Your task to perform on an android device: turn on sleep mode Image 0: 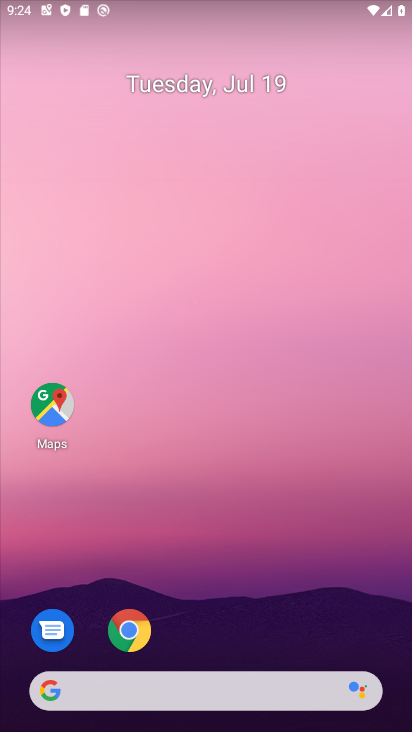
Step 0: drag from (238, 528) to (198, 132)
Your task to perform on an android device: turn on sleep mode Image 1: 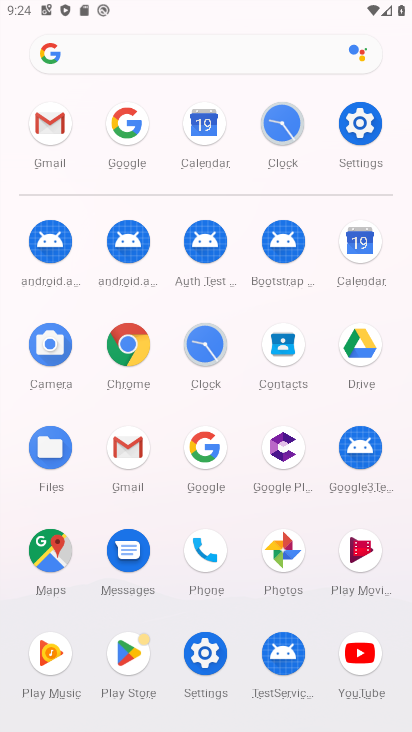
Step 1: click (358, 122)
Your task to perform on an android device: turn on sleep mode Image 2: 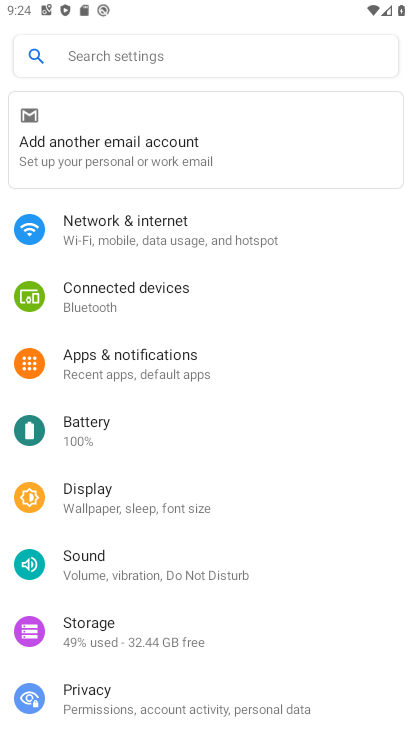
Step 2: click (149, 505)
Your task to perform on an android device: turn on sleep mode Image 3: 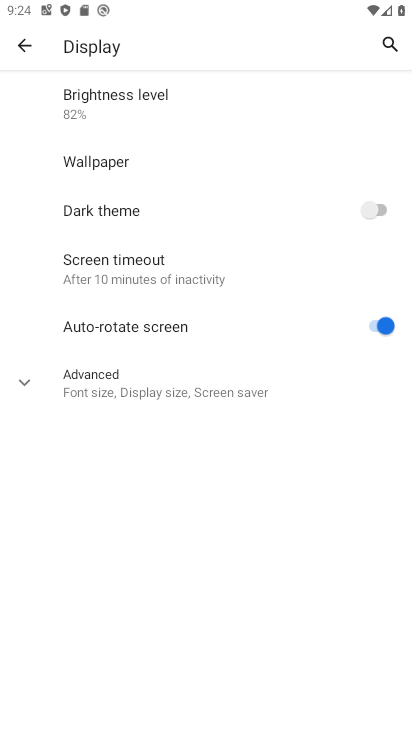
Step 3: click (123, 259)
Your task to perform on an android device: turn on sleep mode Image 4: 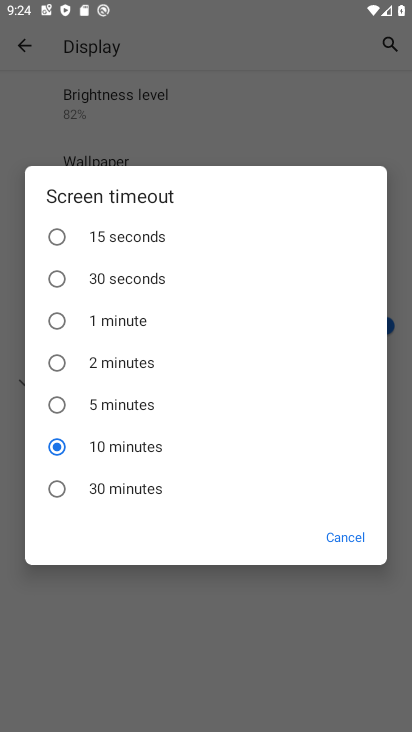
Step 4: task complete